Your task to perform on an android device: When is my next appointment? Image 0: 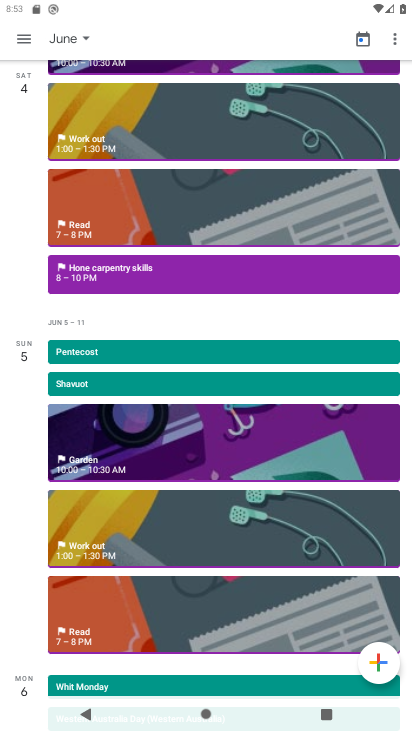
Step 0: press home button
Your task to perform on an android device: When is my next appointment? Image 1: 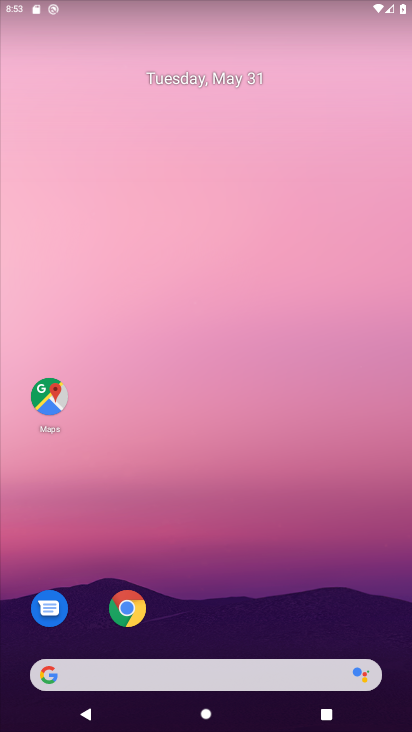
Step 1: drag from (274, 618) to (192, 137)
Your task to perform on an android device: When is my next appointment? Image 2: 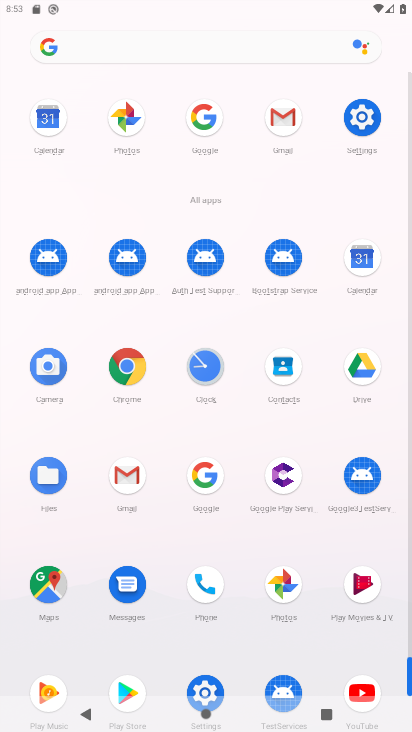
Step 2: click (362, 258)
Your task to perform on an android device: When is my next appointment? Image 3: 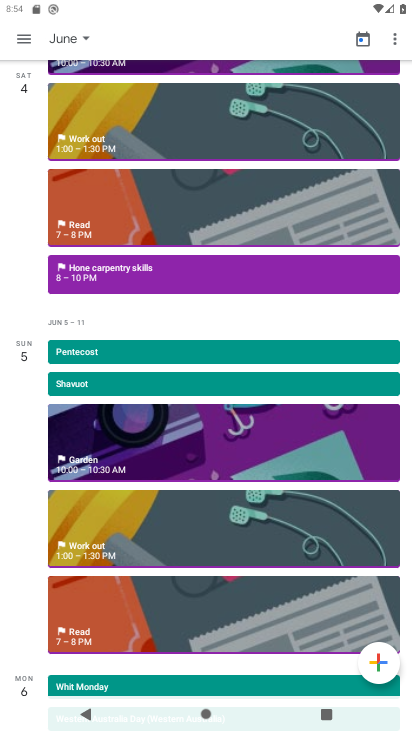
Step 3: click (361, 45)
Your task to perform on an android device: When is my next appointment? Image 4: 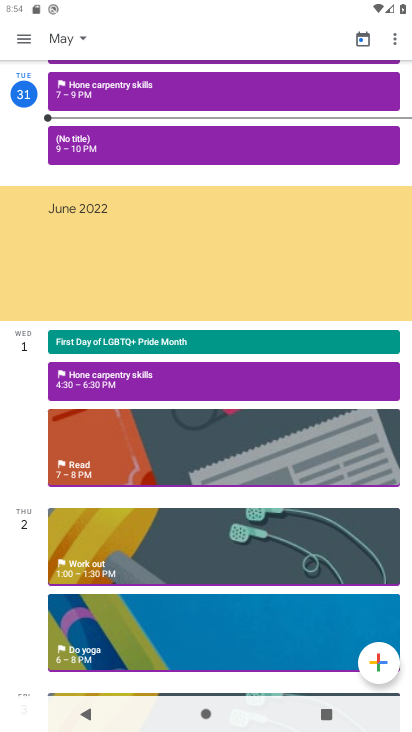
Step 4: click (85, 39)
Your task to perform on an android device: When is my next appointment? Image 5: 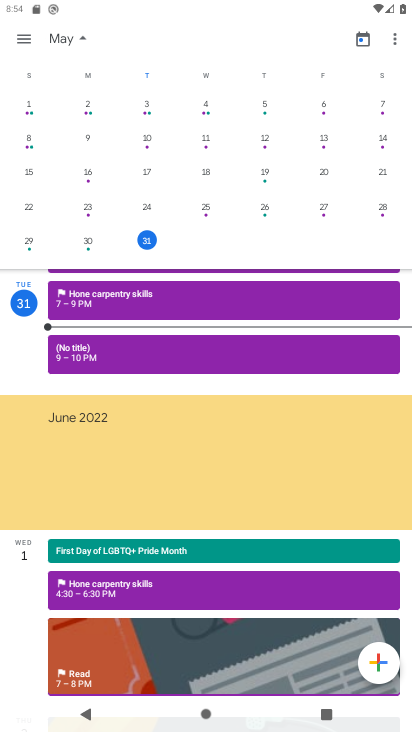
Step 5: drag from (360, 177) to (117, 179)
Your task to perform on an android device: When is my next appointment? Image 6: 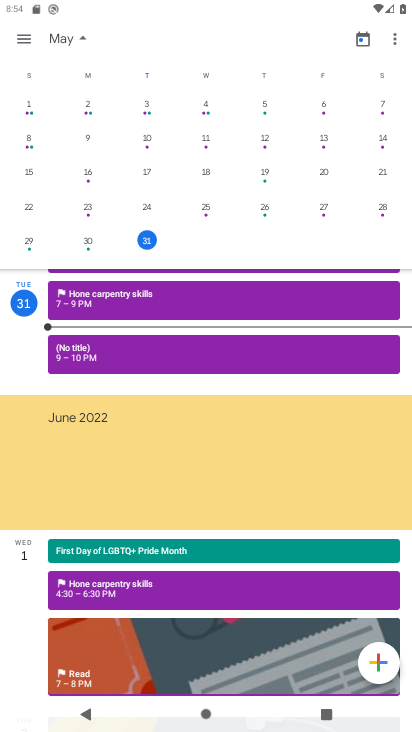
Step 6: drag from (369, 181) to (16, 187)
Your task to perform on an android device: When is my next appointment? Image 7: 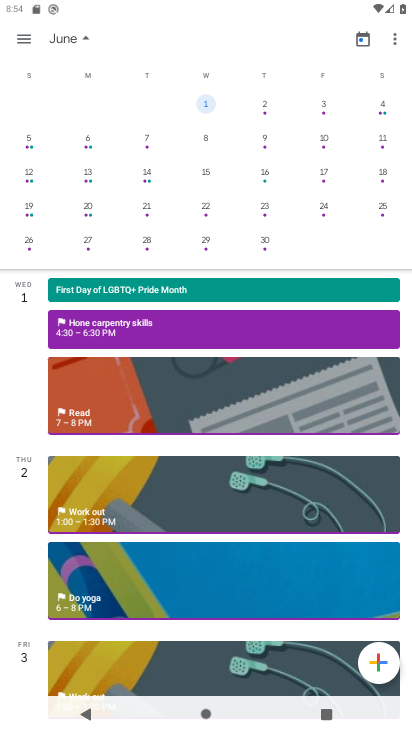
Step 7: click (210, 101)
Your task to perform on an android device: When is my next appointment? Image 8: 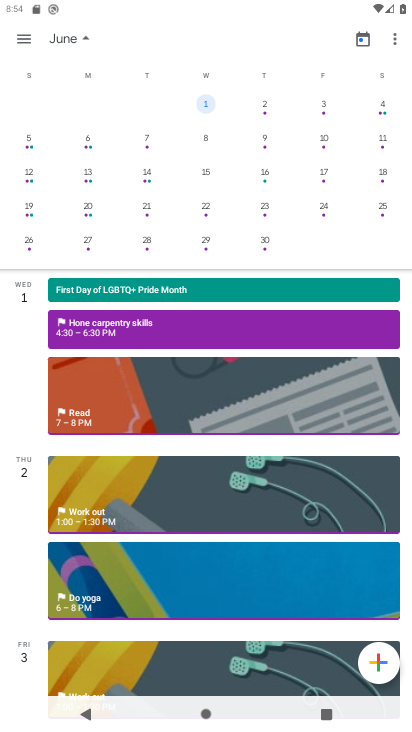
Step 8: click (35, 38)
Your task to perform on an android device: When is my next appointment? Image 9: 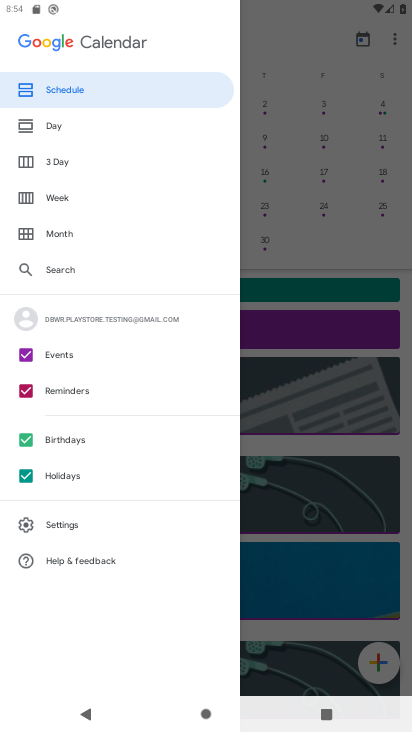
Step 9: click (53, 93)
Your task to perform on an android device: When is my next appointment? Image 10: 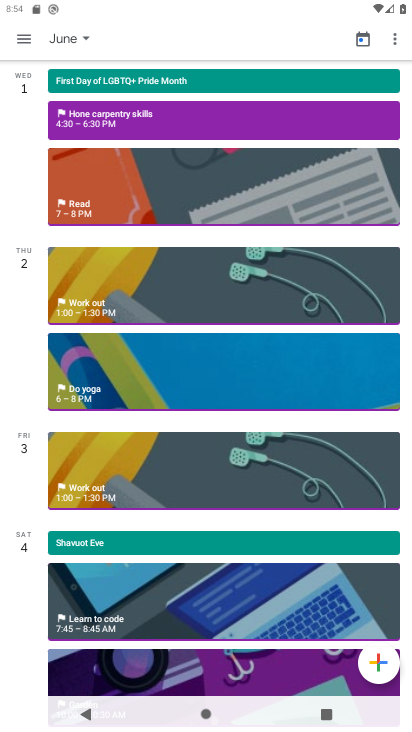
Step 10: task complete